Your task to perform on an android device: install app "Microsoft Excel" Image 0: 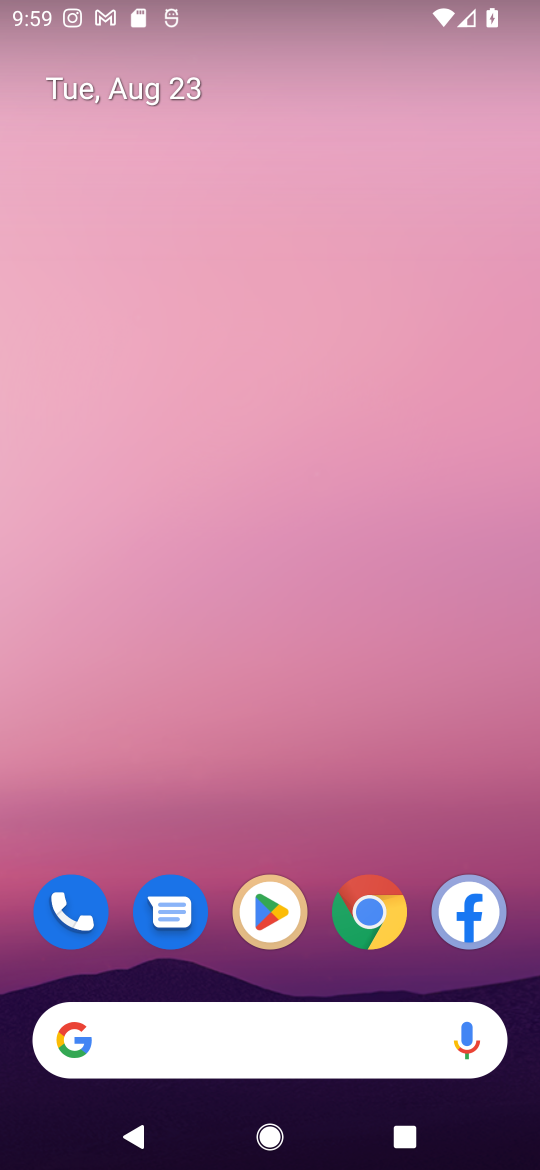
Step 0: click (262, 925)
Your task to perform on an android device: install app "Microsoft Excel" Image 1: 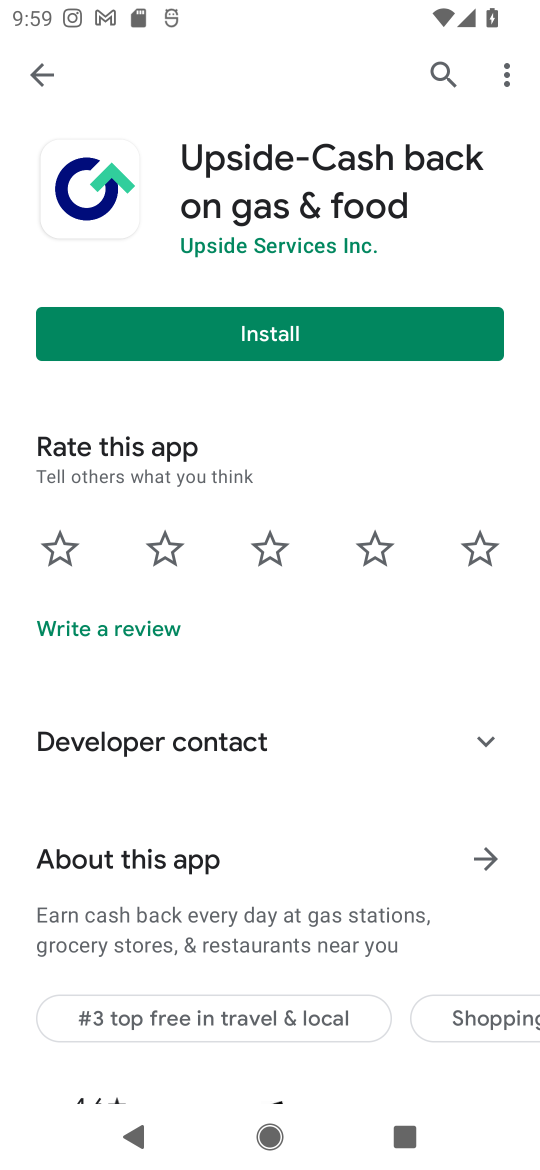
Step 1: click (439, 70)
Your task to perform on an android device: install app "Microsoft Excel" Image 2: 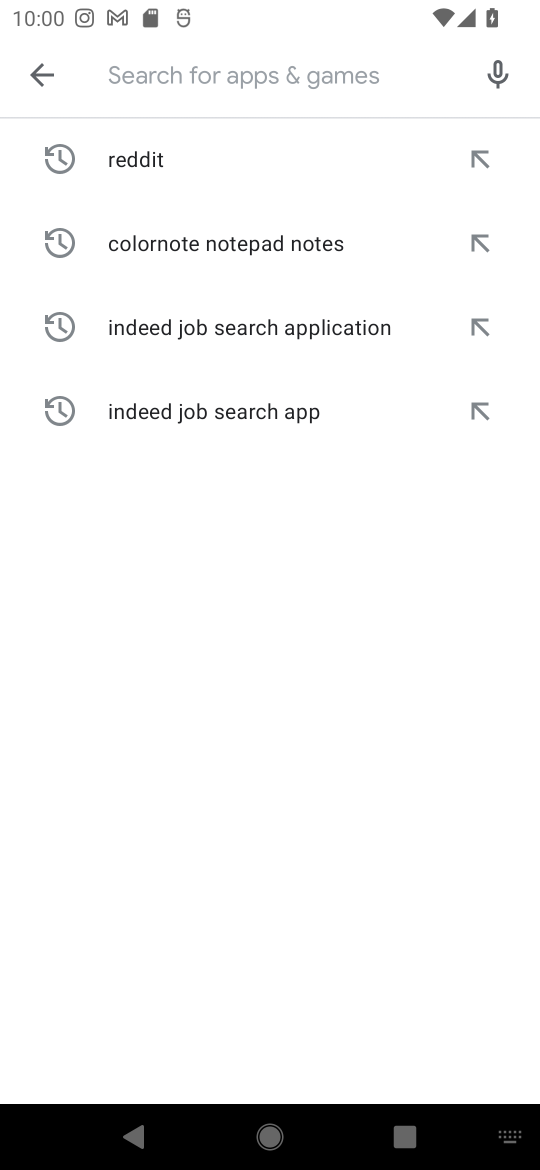
Step 2: type "Microsoft Excel"
Your task to perform on an android device: install app "Microsoft Excel" Image 3: 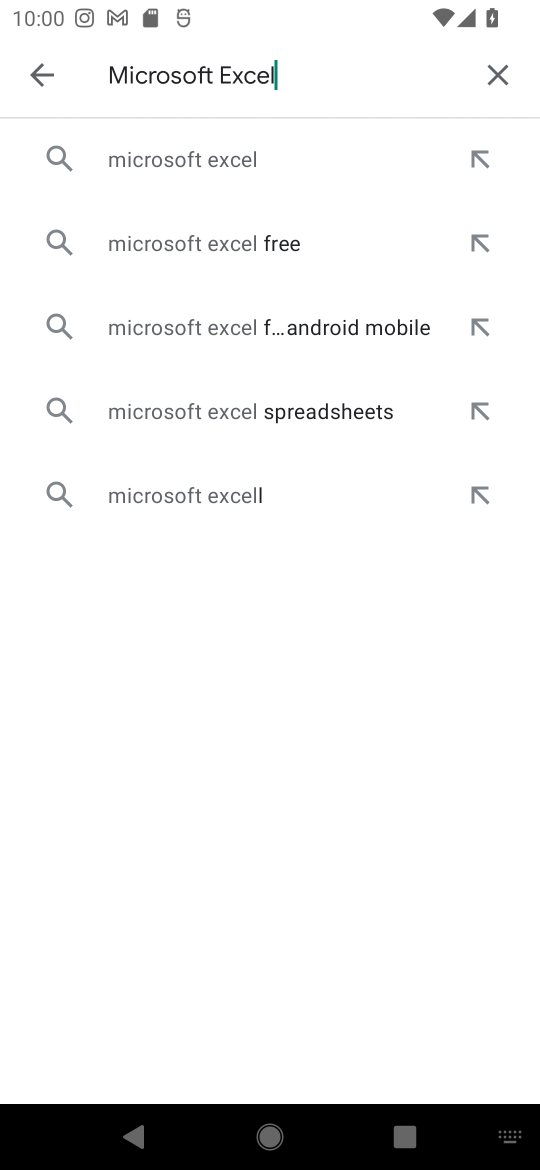
Step 3: click (154, 161)
Your task to perform on an android device: install app "Microsoft Excel" Image 4: 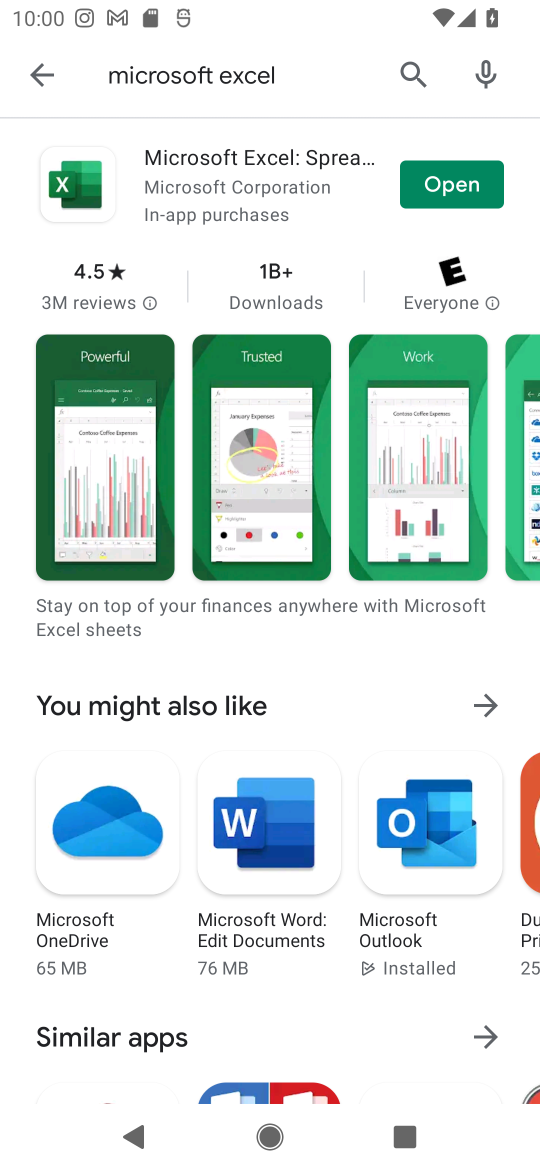
Step 4: task complete